Your task to perform on an android device: turn off notifications in google photos Image 0: 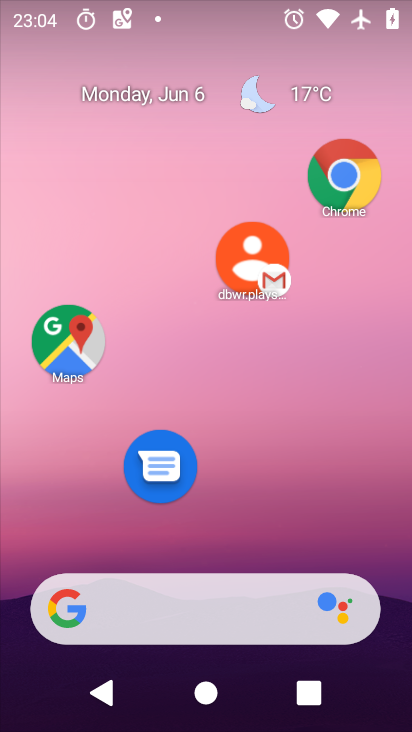
Step 0: drag from (190, 556) to (271, 4)
Your task to perform on an android device: turn off notifications in google photos Image 1: 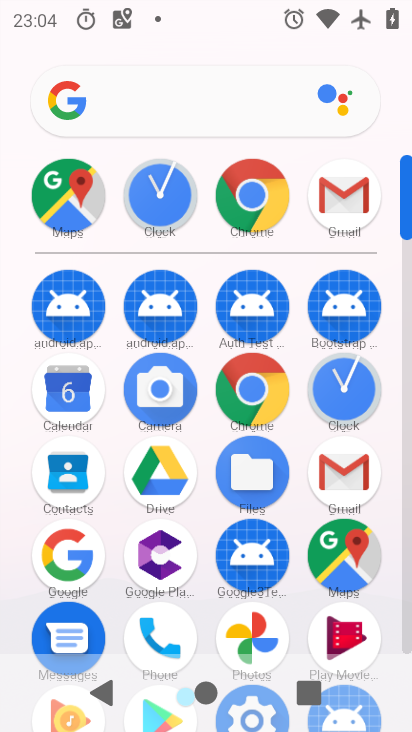
Step 1: click (245, 619)
Your task to perform on an android device: turn off notifications in google photos Image 2: 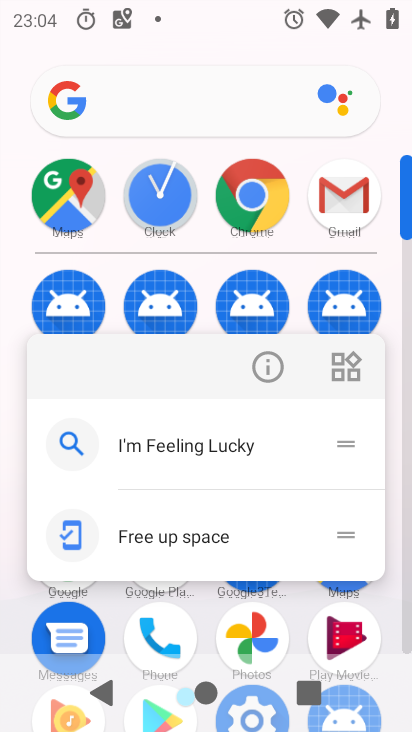
Step 2: click (264, 359)
Your task to perform on an android device: turn off notifications in google photos Image 3: 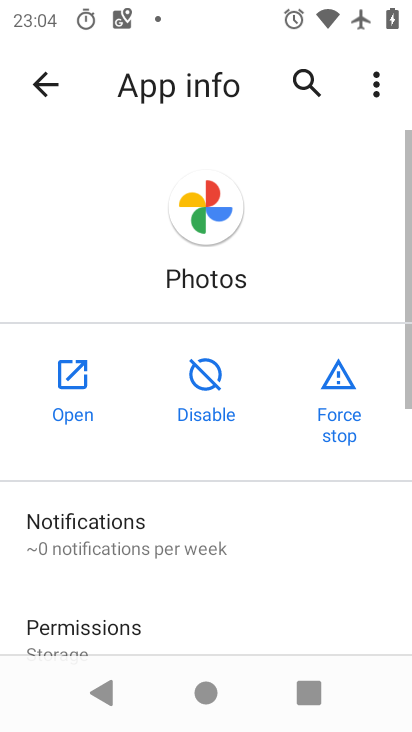
Step 3: click (73, 359)
Your task to perform on an android device: turn off notifications in google photos Image 4: 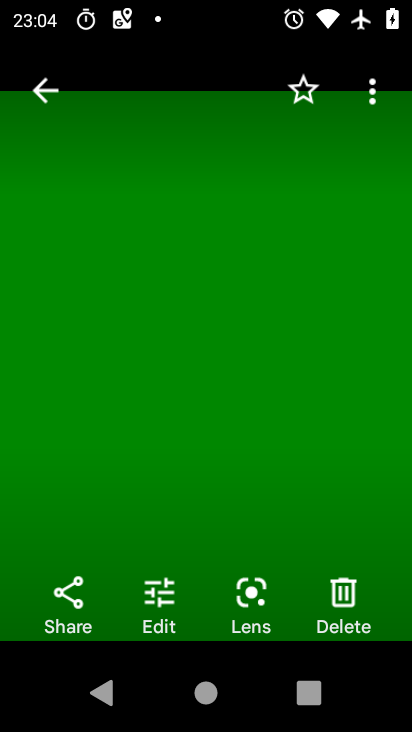
Step 4: drag from (298, 515) to (325, 138)
Your task to perform on an android device: turn off notifications in google photos Image 5: 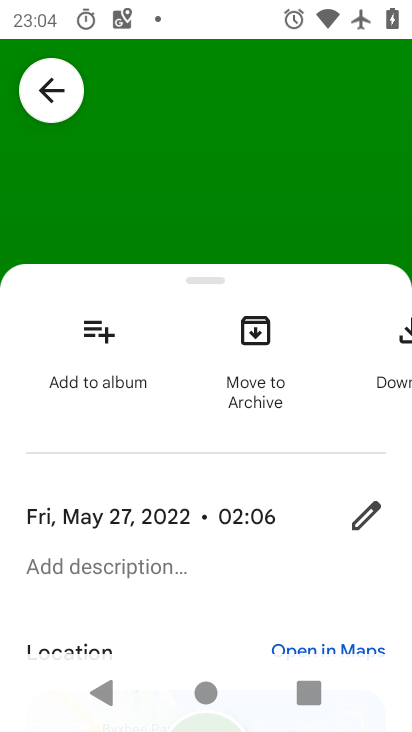
Step 5: click (30, 92)
Your task to perform on an android device: turn off notifications in google photos Image 6: 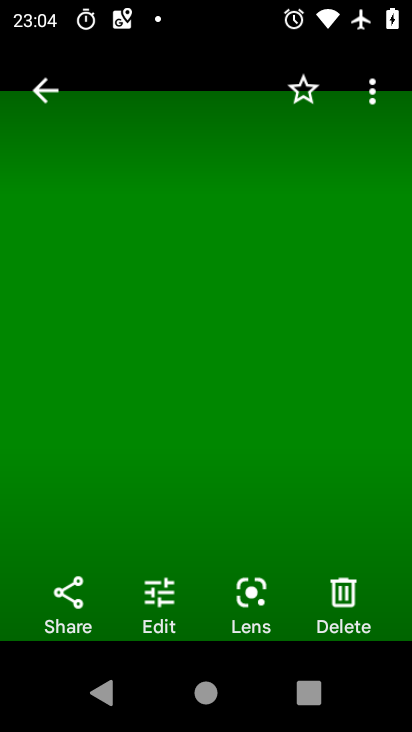
Step 6: click (35, 85)
Your task to perform on an android device: turn off notifications in google photos Image 7: 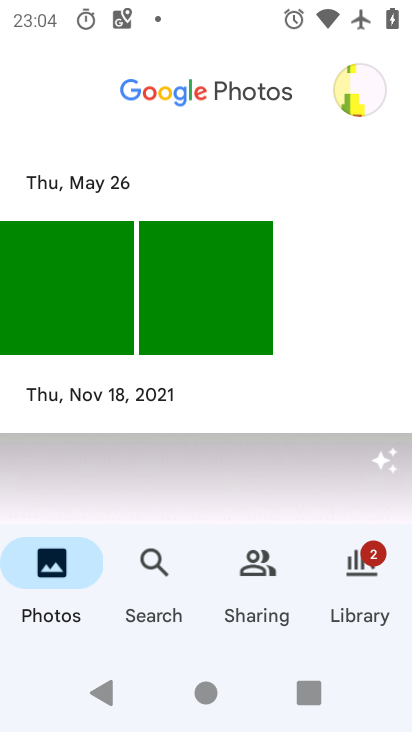
Step 7: drag from (221, 416) to (276, 93)
Your task to perform on an android device: turn off notifications in google photos Image 8: 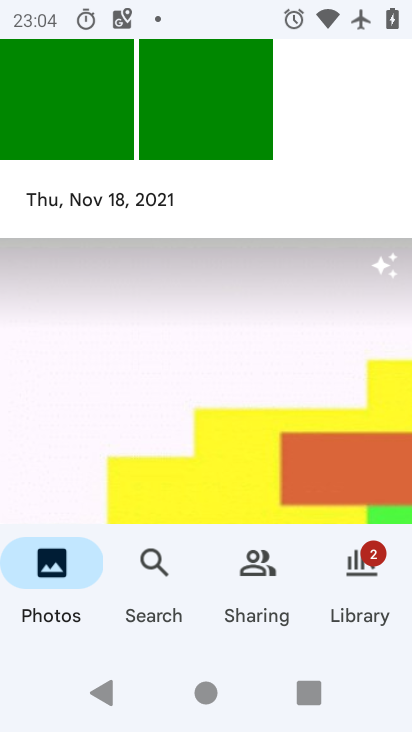
Step 8: drag from (219, 423) to (280, 115)
Your task to perform on an android device: turn off notifications in google photos Image 9: 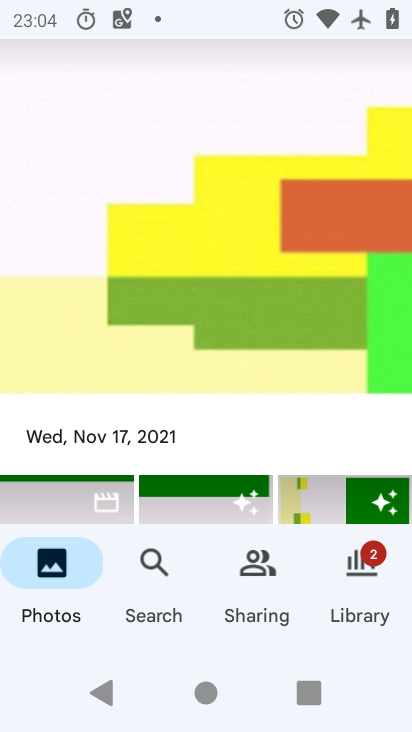
Step 9: drag from (202, 314) to (310, 6)
Your task to perform on an android device: turn off notifications in google photos Image 10: 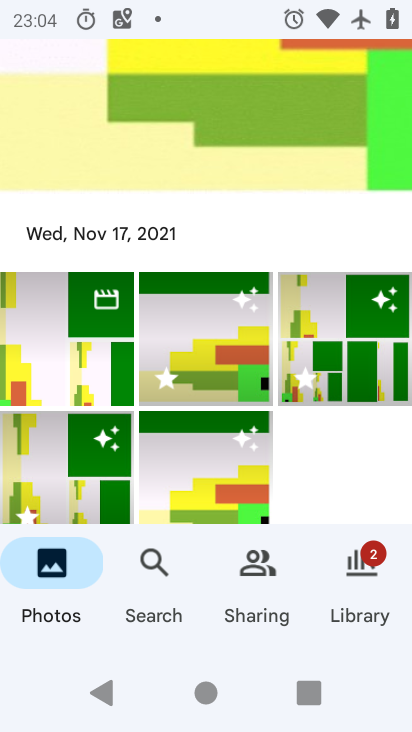
Step 10: drag from (299, 72) to (361, 420)
Your task to perform on an android device: turn off notifications in google photos Image 11: 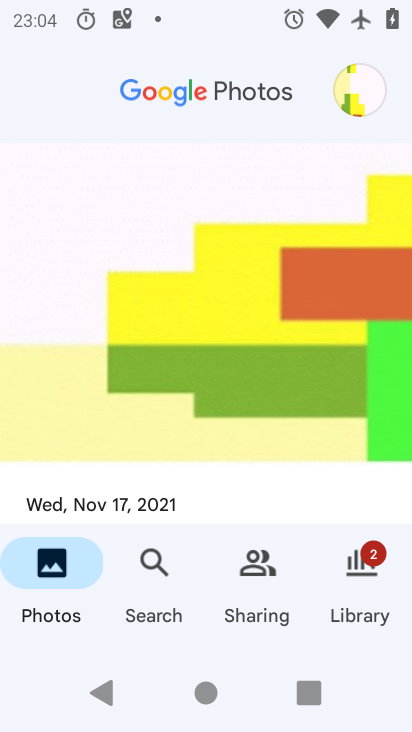
Step 11: click (353, 80)
Your task to perform on an android device: turn off notifications in google photos Image 12: 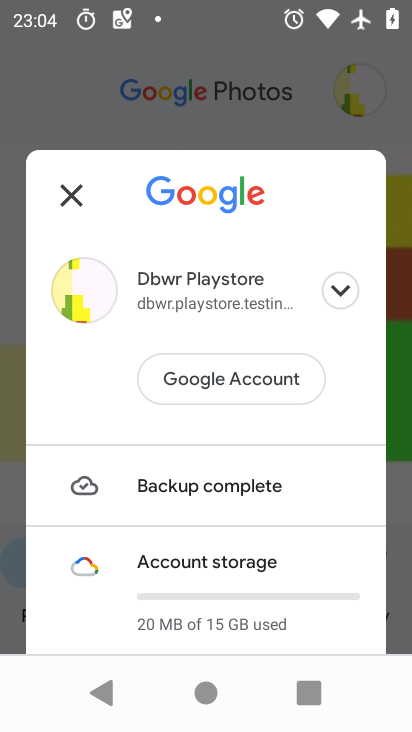
Step 12: drag from (262, 466) to (362, 5)
Your task to perform on an android device: turn off notifications in google photos Image 13: 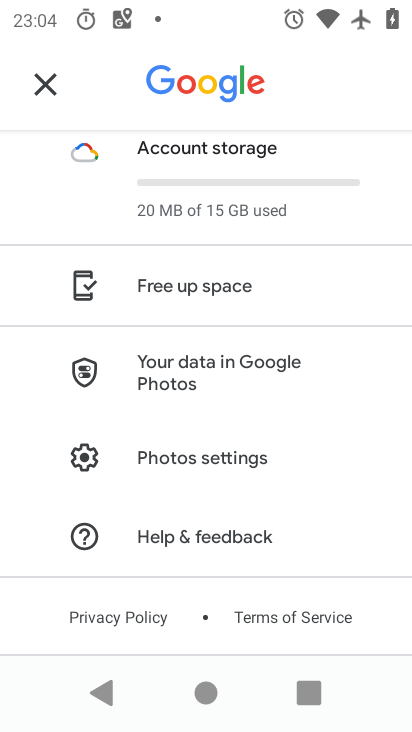
Step 13: click (179, 452)
Your task to perform on an android device: turn off notifications in google photos Image 14: 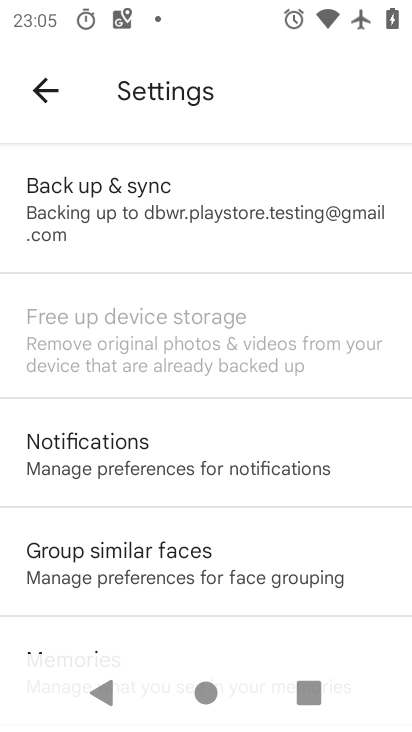
Step 14: click (138, 467)
Your task to perform on an android device: turn off notifications in google photos Image 15: 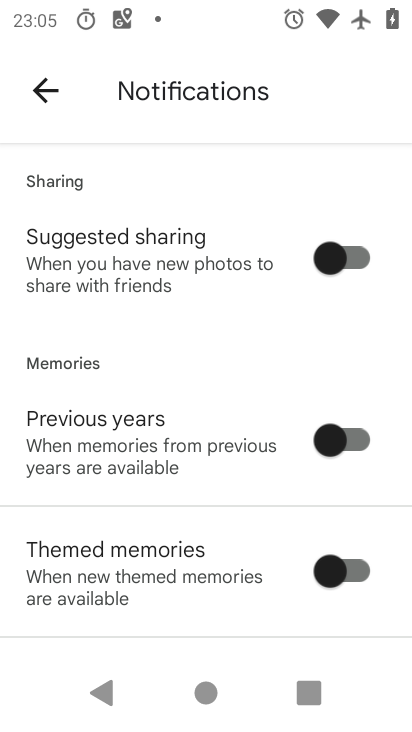
Step 15: drag from (145, 539) to (319, 28)
Your task to perform on an android device: turn off notifications in google photos Image 16: 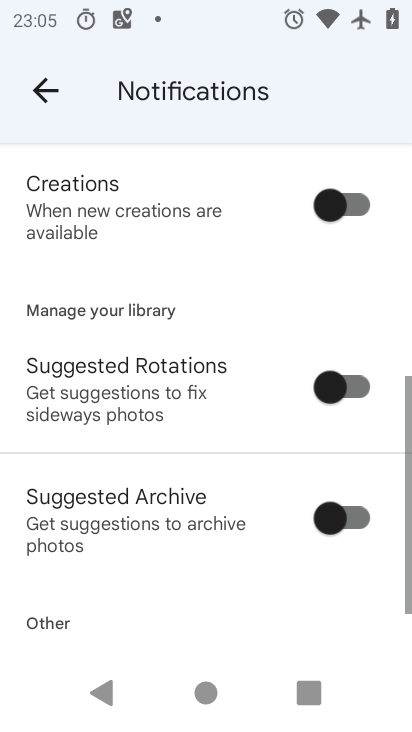
Step 16: drag from (167, 459) to (247, 97)
Your task to perform on an android device: turn off notifications in google photos Image 17: 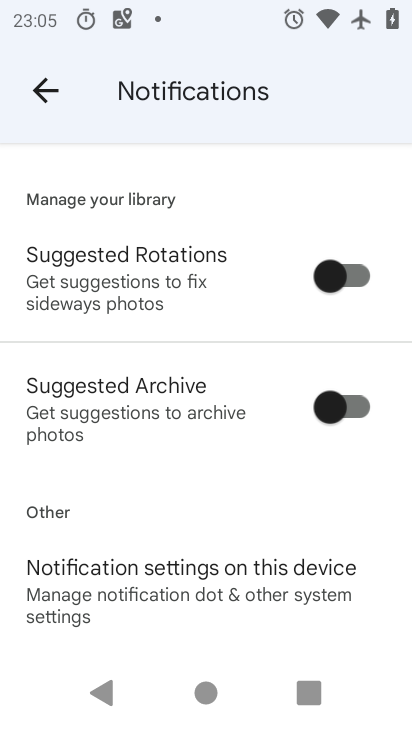
Step 17: click (144, 575)
Your task to perform on an android device: turn off notifications in google photos Image 18: 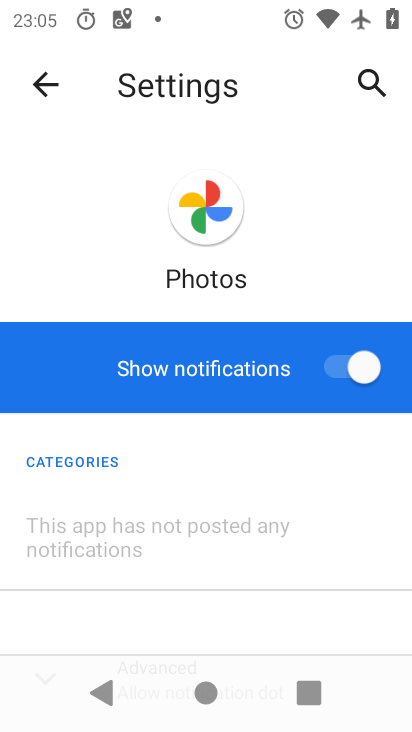
Step 18: drag from (224, 578) to (302, 157)
Your task to perform on an android device: turn off notifications in google photos Image 19: 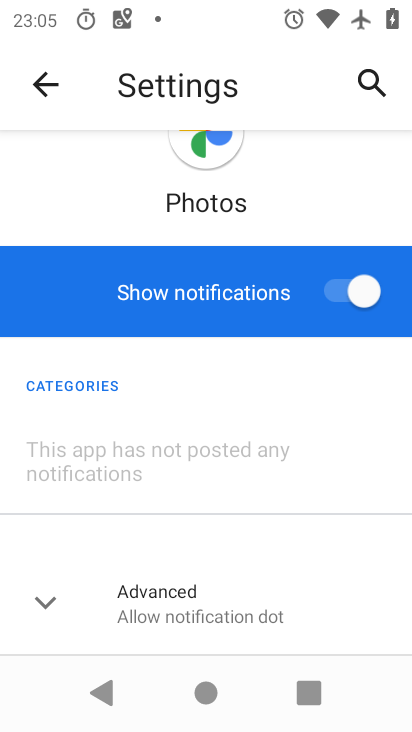
Step 19: click (342, 278)
Your task to perform on an android device: turn off notifications in google photos Image 20: 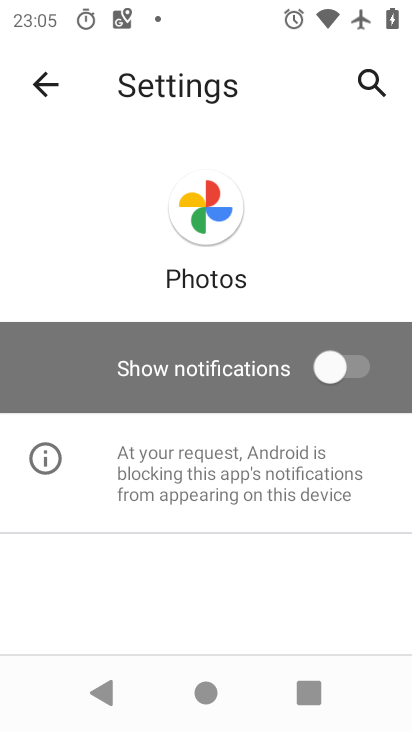
Step 20: task complete